Your task to perform on an android device: Open calendar and show me the fourth week of next month Image 0: 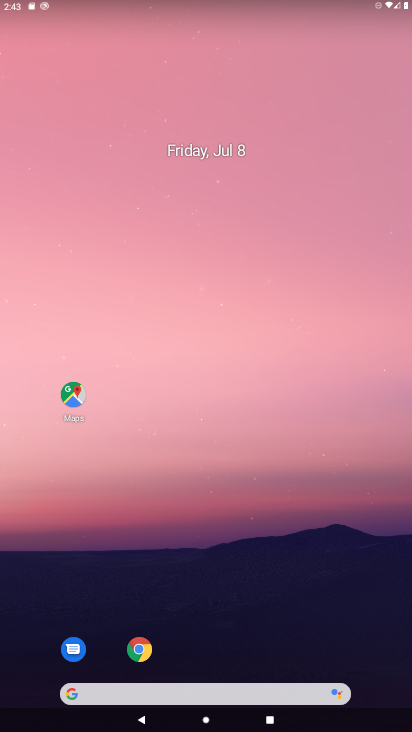
Step 0: press home button
Your task to perform on an android device: Open calendar and show me the fourth week of next month Image 1: 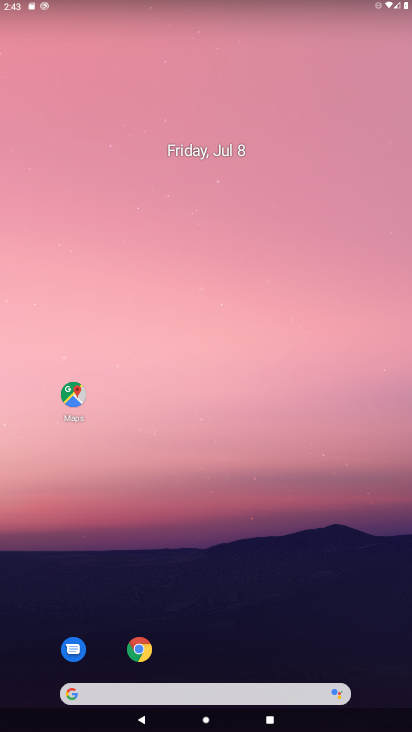
Step 1: drag from (365, 650) to (335, 103)
Your task to perform on an android device: Open calendar and show me the fourth week of next month Image 2: 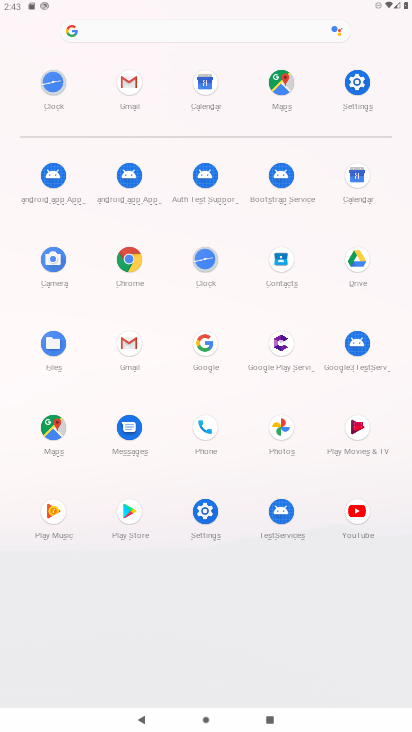
Step 2: click (354, 175)
Your task to perform on an android device: Open calendar and show me the fourth week of next month Image 3: 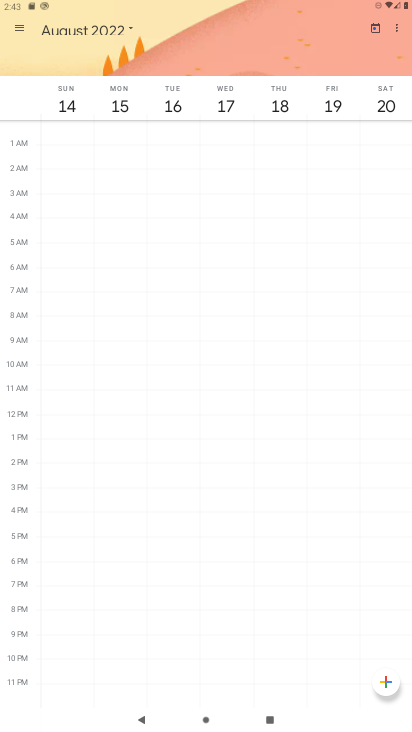
Step 3: click (130, 28)
Your task to perform on an android device: Open calendar and show me the fourth week of next month Image 4: 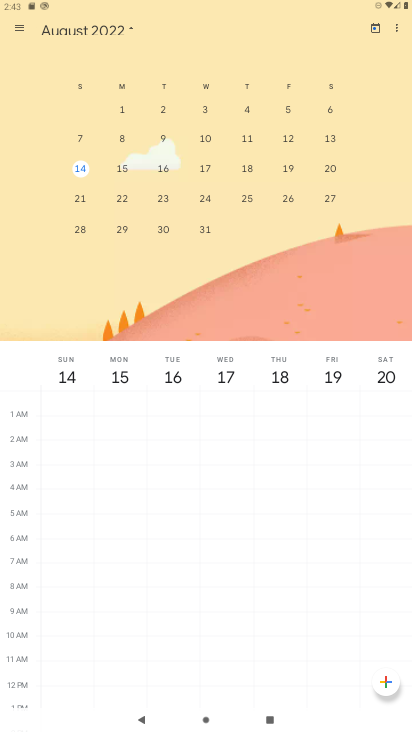
Step 4: click (78, 229)
Your task to perform on an android device: Open calendar and show me the fourth week of next month Image 5: 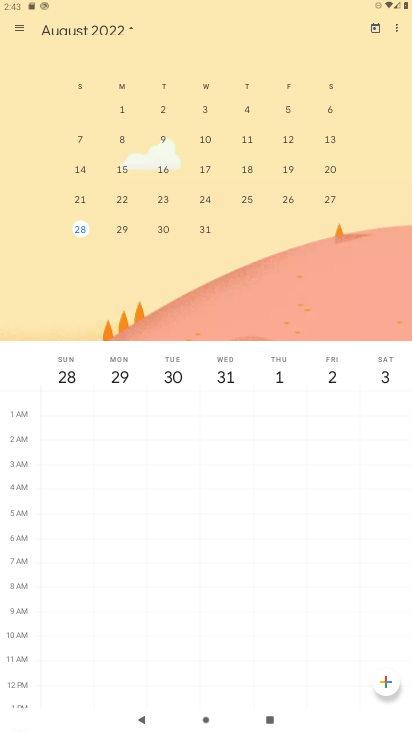
Step 5: task complete